Your task to perform on an android device: Open notification settings Image 0: 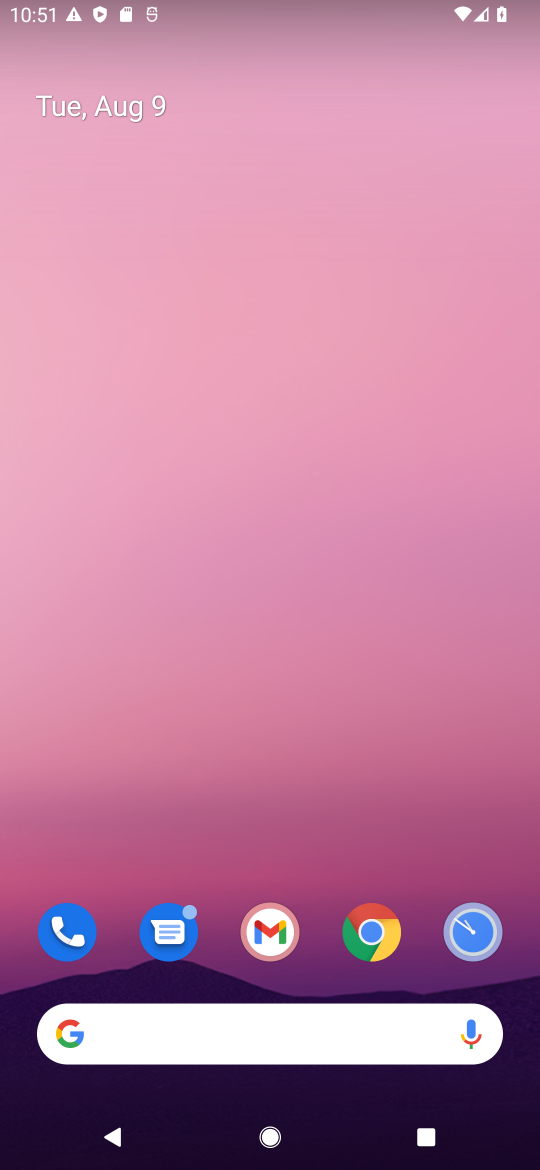
Step 0: drag from (256, 951) to (315, 6)
Your task to perform on an android device: Open notification settings Image 1: 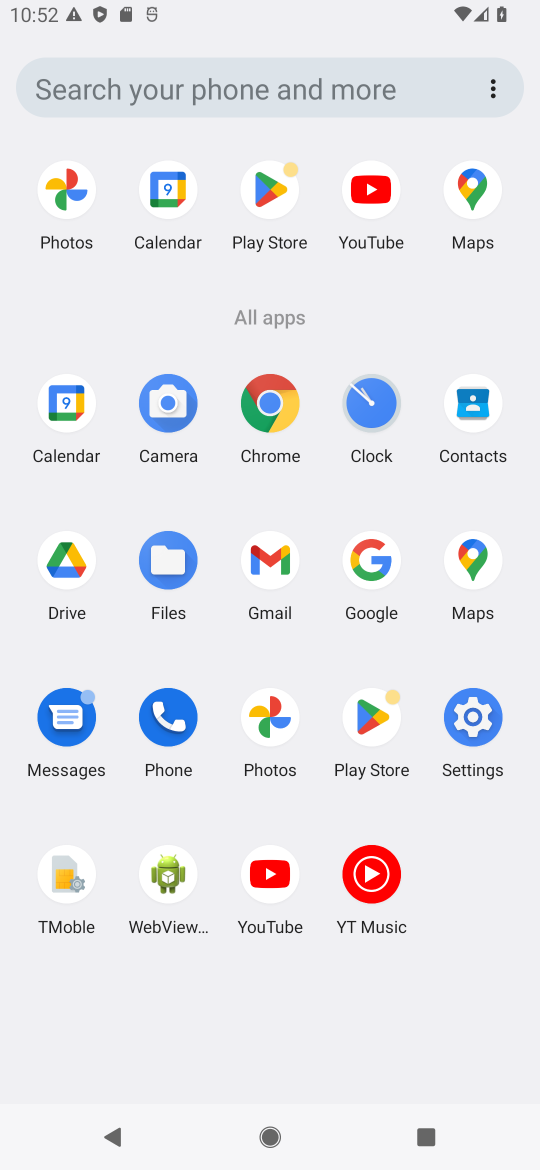
Step 1: click (466, 728)
Your task to perform on an android device: Open notification settings Image 2: 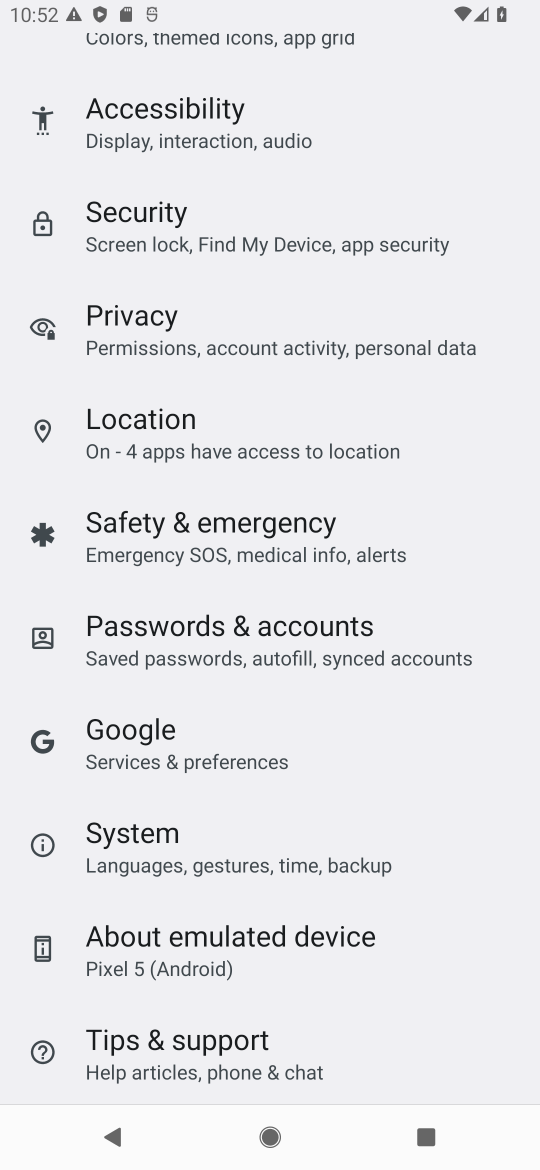
Step 2: drag from (271, 619) to (207, 199)
Your task to perform on an android device: Open notification settings Image 3: 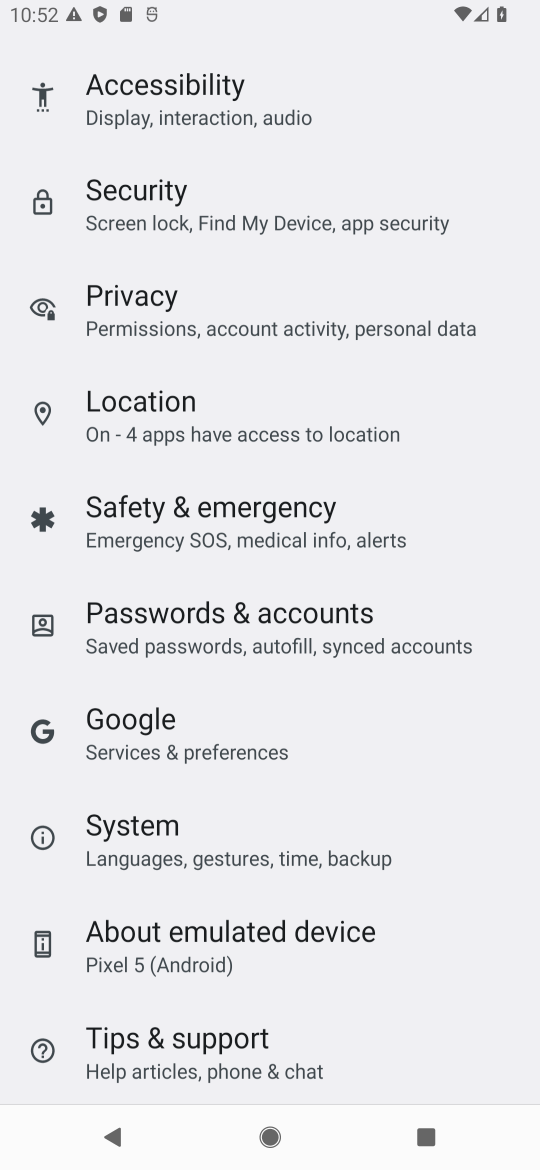
Step 3: drag from (200, 267) to (63, 1167)
Your task to perform on an android device: Open notification settings Image 4: 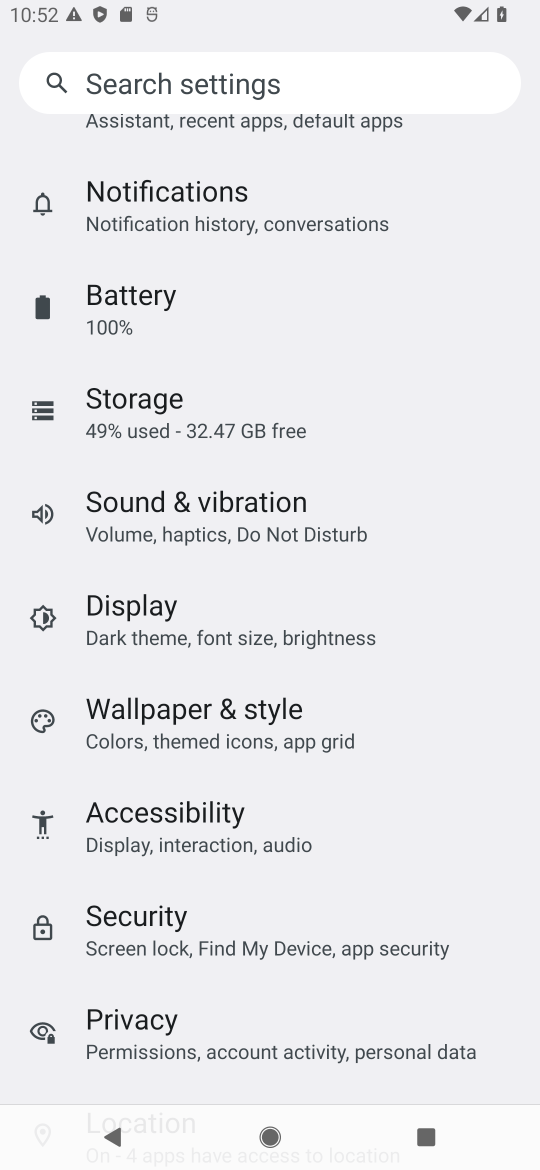
Step 4: click (203, 217)
Your task to perform on an android device: Open notification settings Image 5: 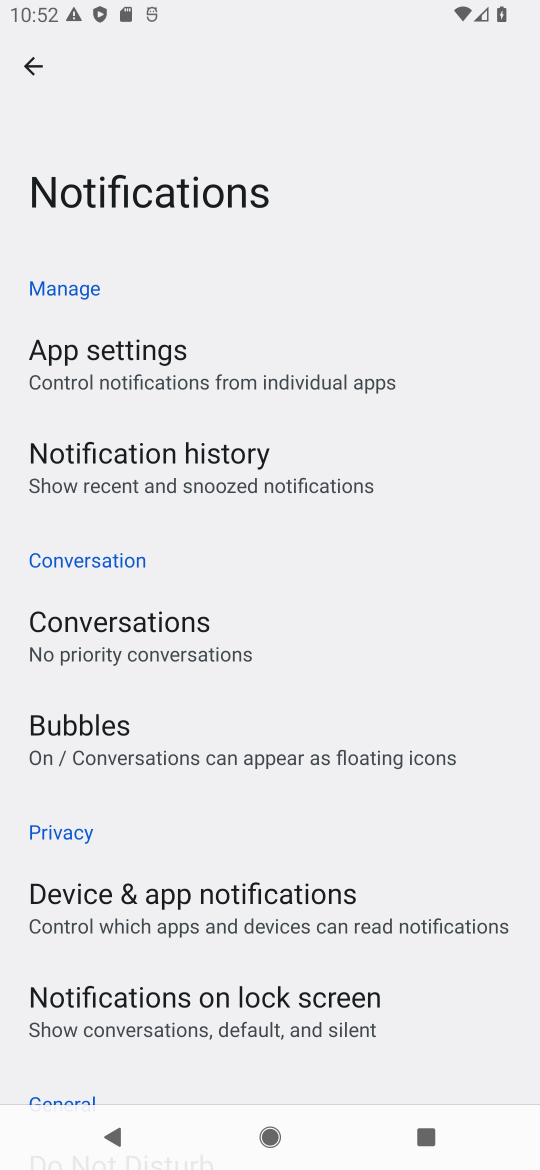
Step 5: task complete